Your task to perform on an android device: turn off location history Image 0: 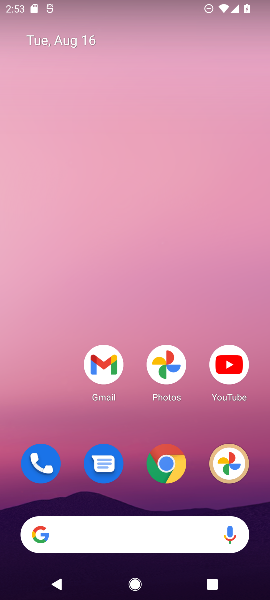
Step 0: drag from (159, 508) to (99, 68)
Your task to perform on an android device: turn off location history Image 1: 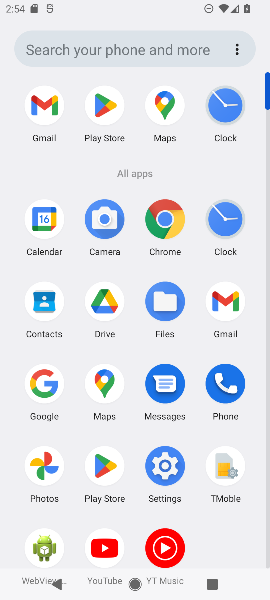
Step 1: click (171, 470)
Your task to perform on an android device: turn off location history Image 2: 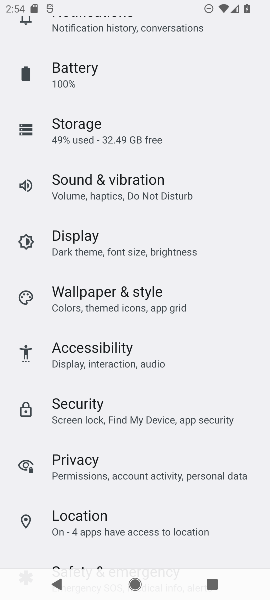
Step 2: click (79, 513)
Your task to perform on an android device: turn off location history Image 3: 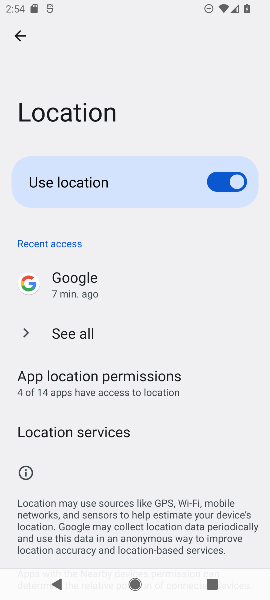
Step 3: click (54, 433)
Your task to perform on an android device: turn off location history Image 4: 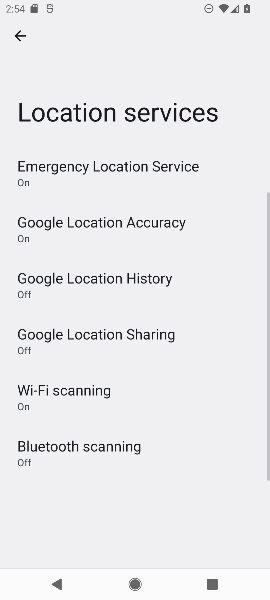
Step 4: click (90, 282)
Your task to perform on an android device: turn off location history Image 5: 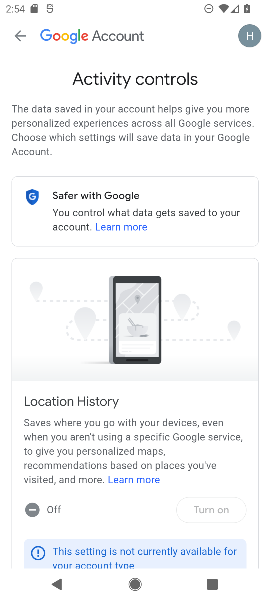
Step 5: task complete